Your task to perform on an android device: turn off priority inbox in the gmail app Image 0: 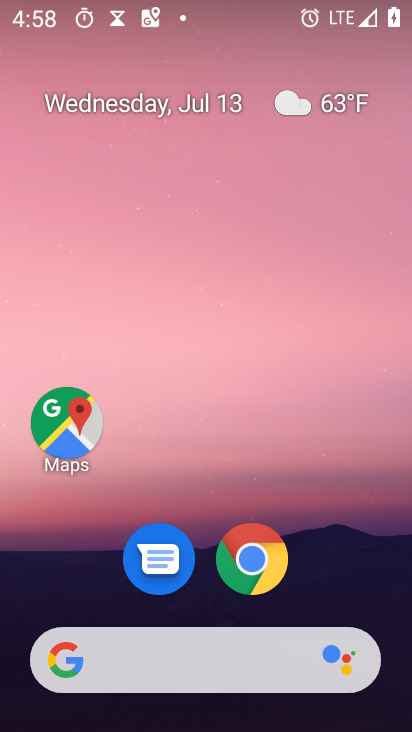
Step 0: drag from (381, 560) to (242, 50)
Your task to perform on an android device: turn off priority inbox in the gmail app Image 1: 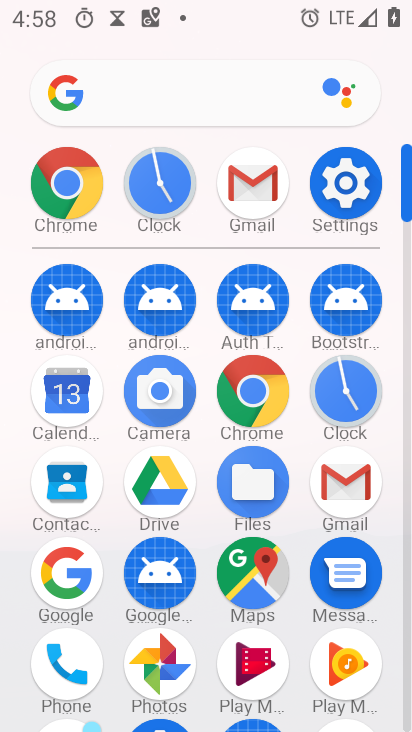
Step 1: click (252, 167)
Your task to perform on an android device: turn off priority inbox in the gmail app Image 2: 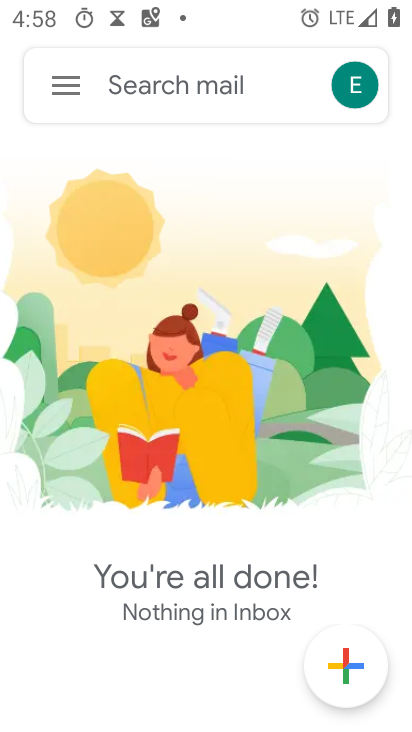
Step 2: click (61, 94)
Your task to perform on an android device: turn off priority inbox in the gmail app Image 3: 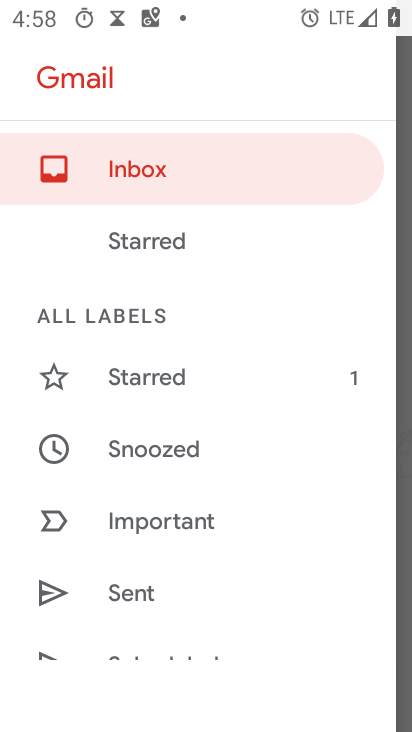
Step 3: drag from (213, 604) to (154, 180)
Your task to perform on an android device: turn off priority inbox in the gmail app Image 4: 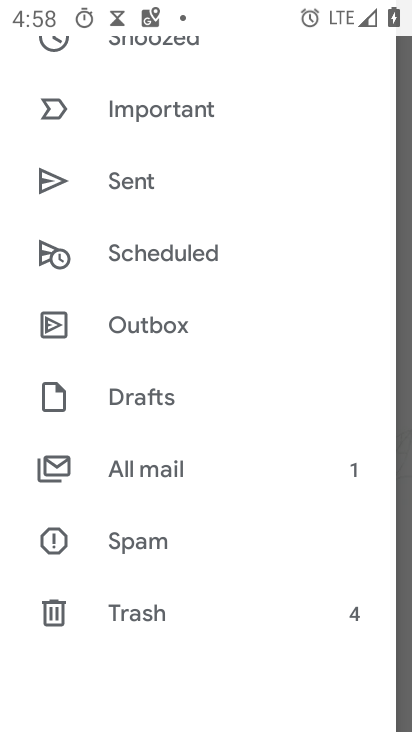
Step 4: drag from (243, 574) to (208, 154)
Your task to perform on an android device: turn off priority inbox in the gmail app Image 5: 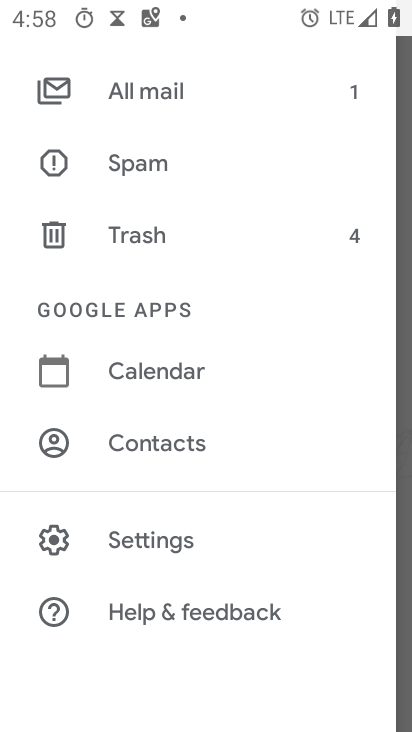
Step 5: click (191, 547)
Your task to perform on an android device: turn off priority inbox in the gmail app Image 6: 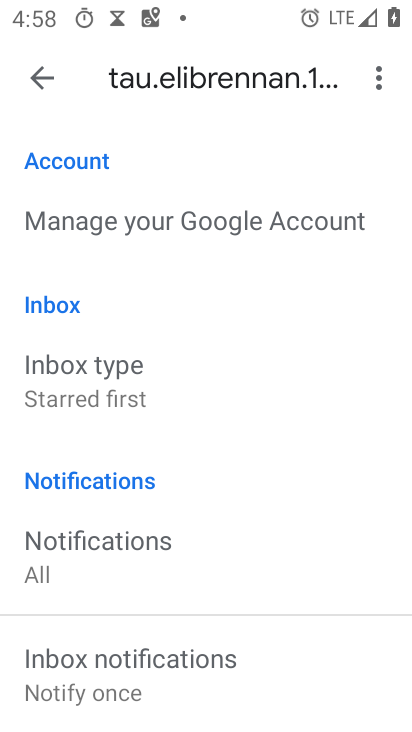
Step 6: drag from (272, 654) to (282, 245)
Your task to perform on an android device: turn off priority inbox in the gmail app Image 7: 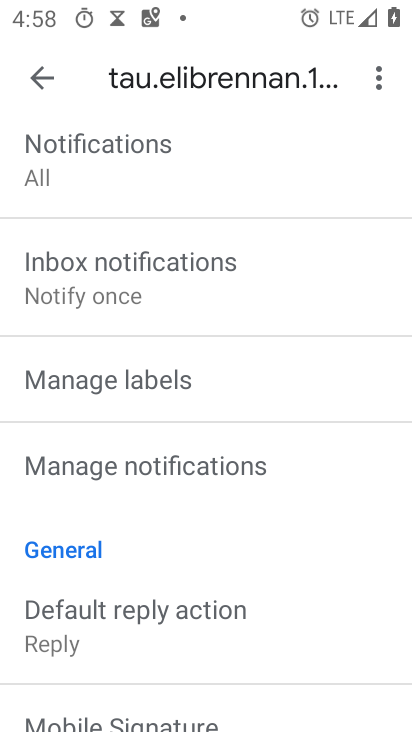
Step 7: drag from (329, 642) to (306, 270)
Your task to perform on an android device: turn off priority inbox in the gmail app Image 8: 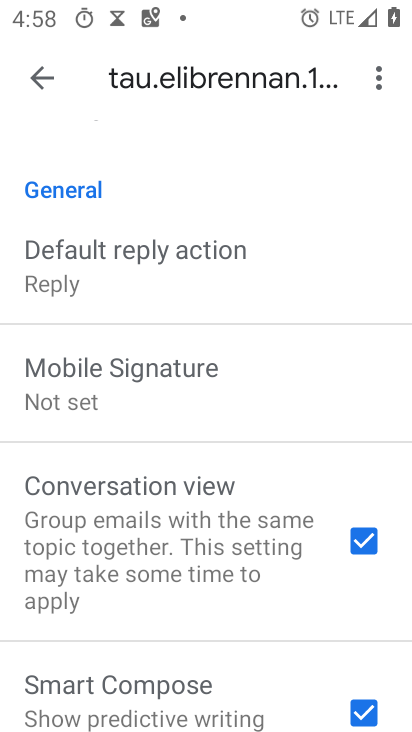
Step 8: drag from (267, 671) to (189, 712)
Your task to perform on an android device: turn off priority inbox in the gmail app Image 9: 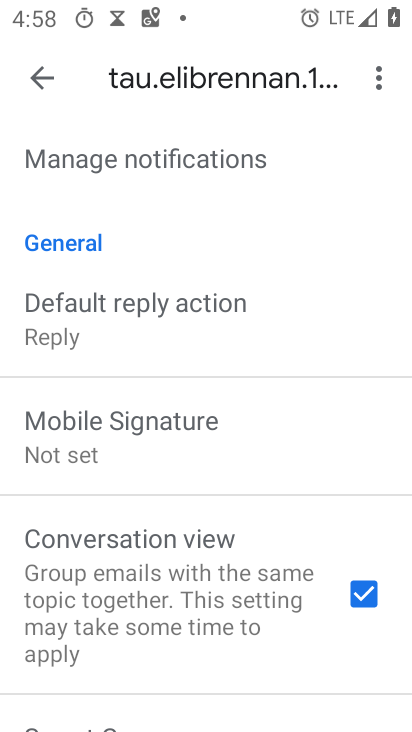
Step 9: drag from (254, 194) to (253, 668)
Your task to perform on an android device: turn off priority inbox in the gmail app Image 10: 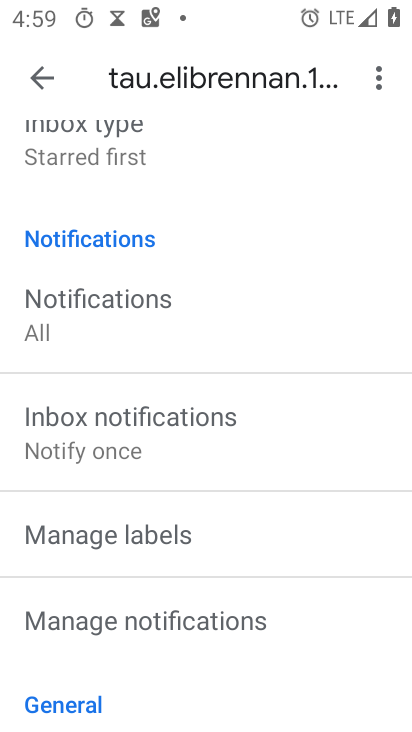
Step 10: click (181, 140)
Your task to perform on an android device: turn off priority inbox in the gmail app Image 11: 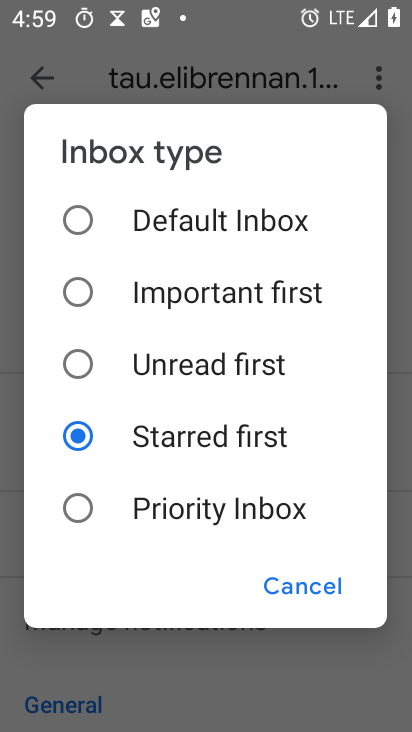
Step 11: task complete